Your task to perform on an android device: turn off wifi Image 0: 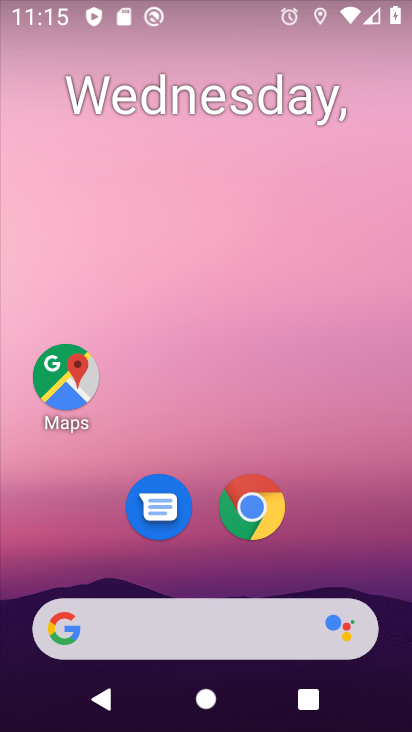
Step 0: drag from (332, 543) to (331, 124)
Your task to perform on an android device: turn off wifi Image 1: 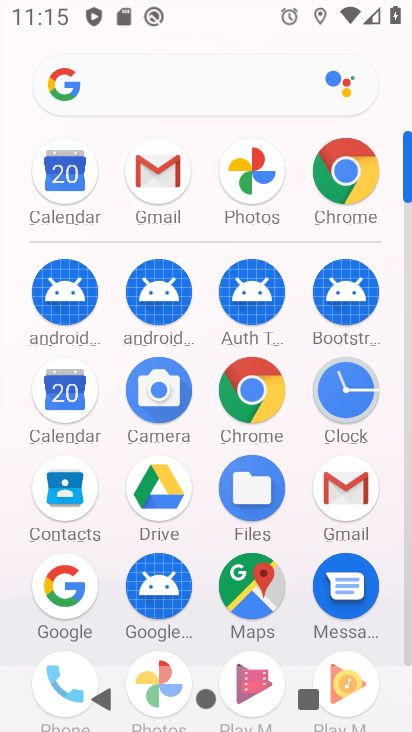
Step 1: drag from (197, 542) to (197, 269)
Your task to perform on an android device: turn off wifi Image 2: 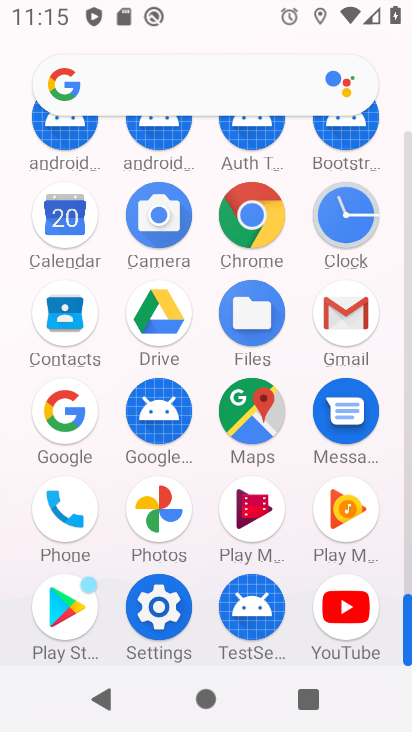
Step 2: click (156, 592)
Your task to perform on an android device: turn off wifi Image 3: 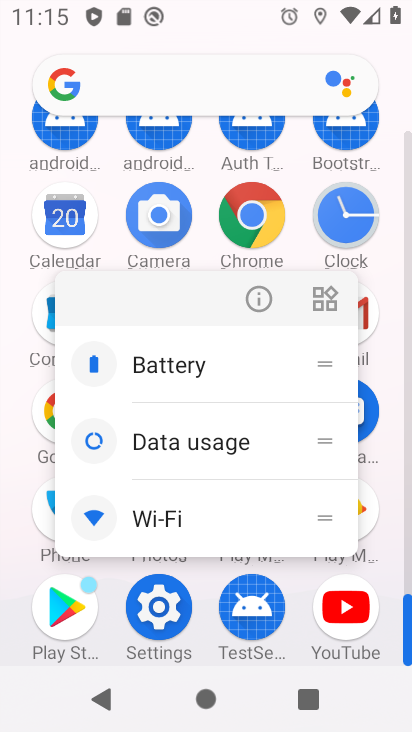
Step 3: click (148, 597)
Your task to perform on an android device: turn off wifi Image 4: 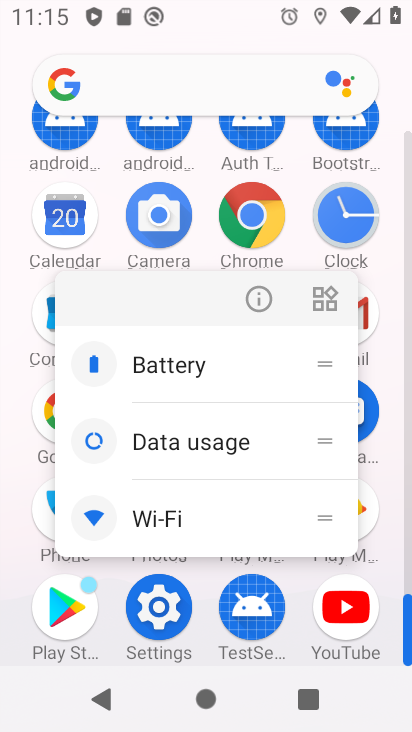
Step 4: click (150, 598)
Your task to perform on an android device: turn off wifi Image 5: 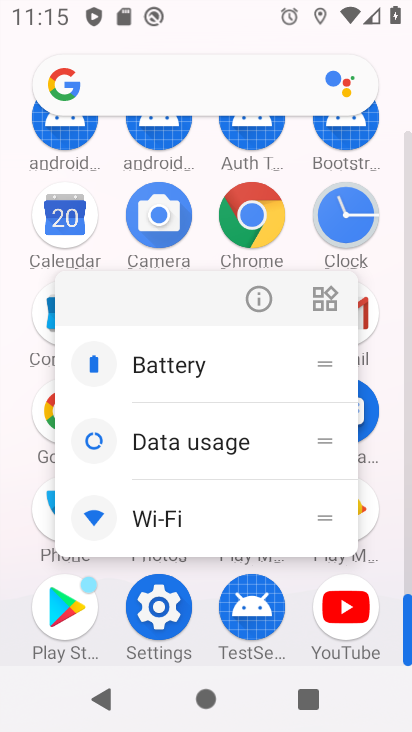
Step 5: click (150, 598)
Your task to perform on an android device: turn off wifi Image 6: 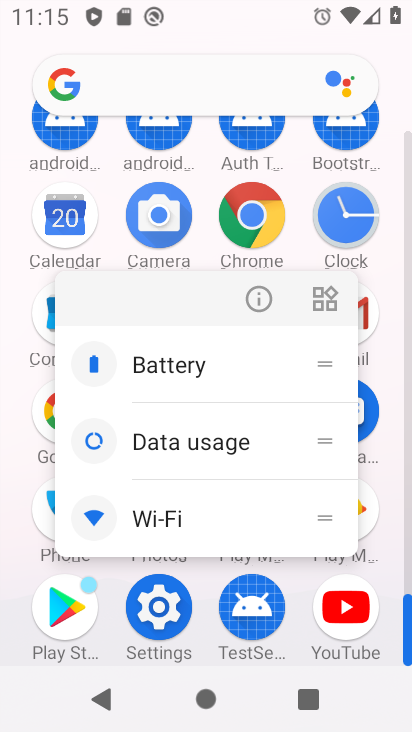
Step 6: click (161, 619)
Your task to perform on an android device: turn off wifi Image 7: 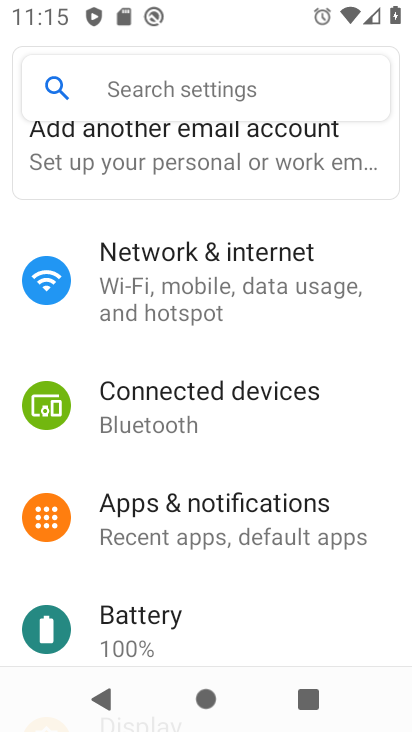
Step 7: click (289, 277)
Your task to perform on an android device: turn off wifi Image 8: 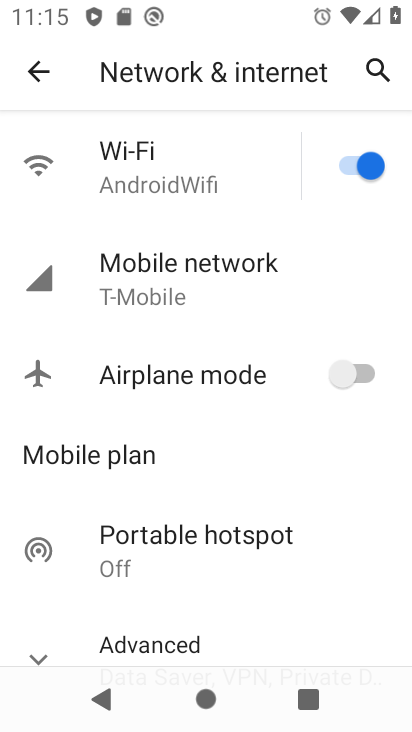
Step 8: click (366, 162)
Your task to perform on an android device: turn off wifi Image 9: 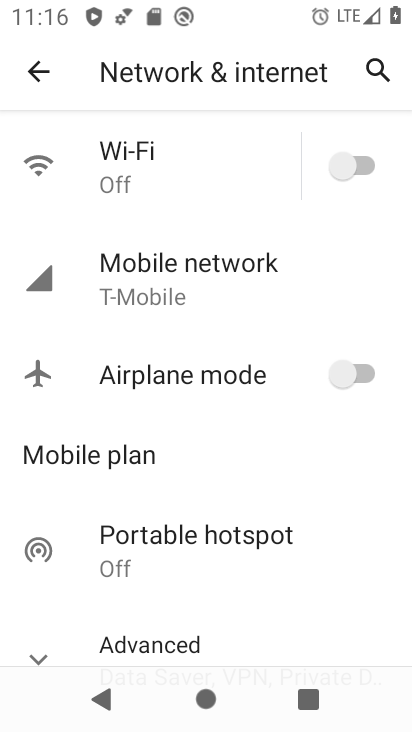
Step 9: task complete